Your task to perform on an android device: delete the emails in spam in the gmail app Image 0: 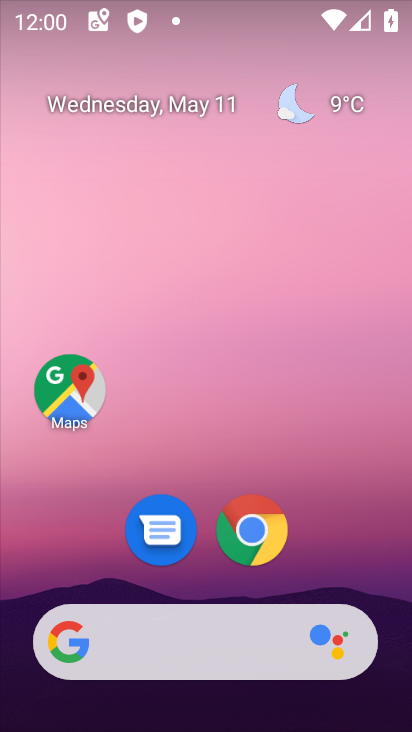
Step 0: press home button
Your task to perform on an android device: delete the emails in spam in the gmail app Image 1: 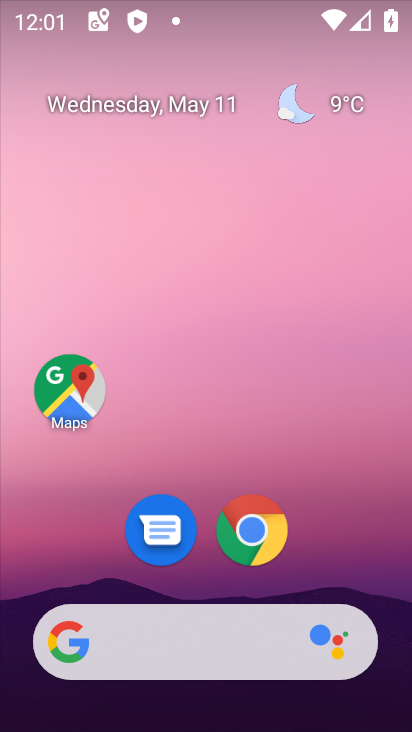
Step 1: drag from (316, 559) to (298, 36)
Your task to perform on an android device: delete the emails in spam in the gmail app Image 2: 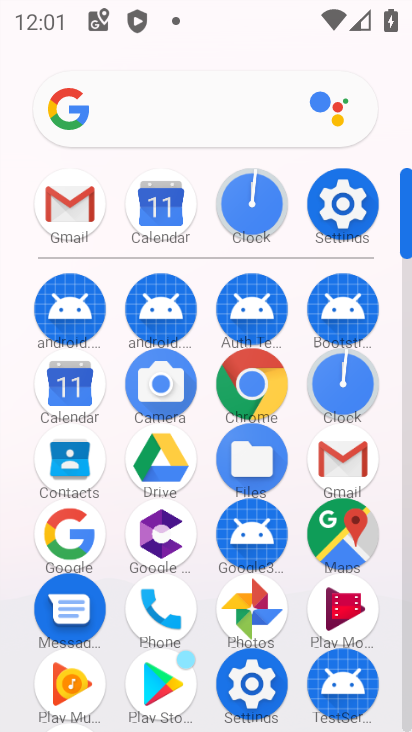
Step 2: click (88, 195)
Your task to perform on an android device: delete the emails in spam in the gmail app Image 3: 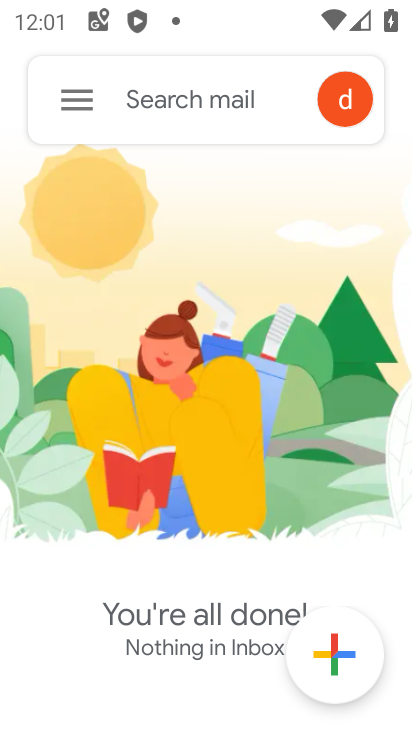
Step 3: click (61, 91)
Your task to perform on an android device: delete the emails in spam in the gmail app Image 4: 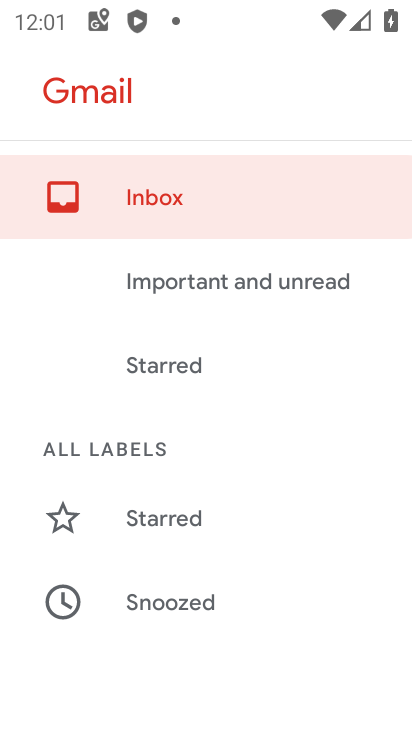
Step 4: task complete